Your task to perform on an android device: turn on improve location accuracy Image 0: 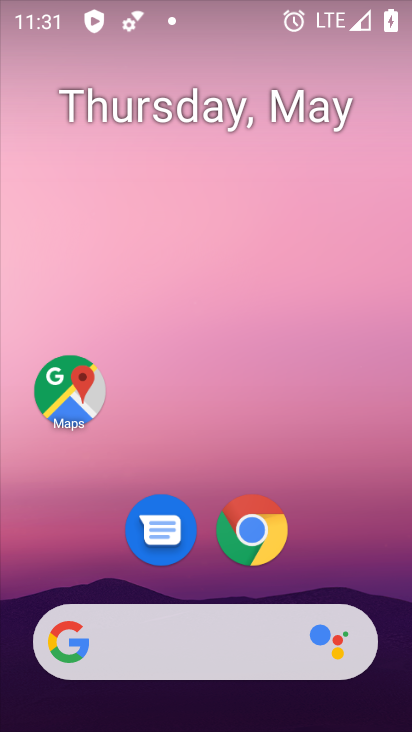
Step 0: drag from (296, 564) to (332, 45)
Your task to perform on an android device: turn on improve location accuracy Image 1: 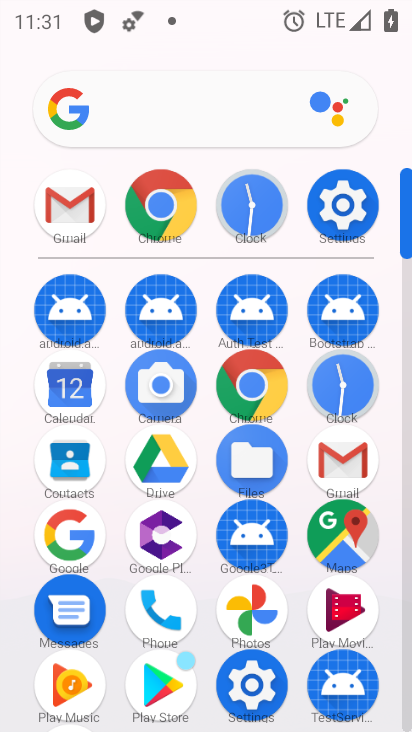
Step 1: click (325, 225)
Your task to perform on an android device: turn on improve location accuracy Image 2: 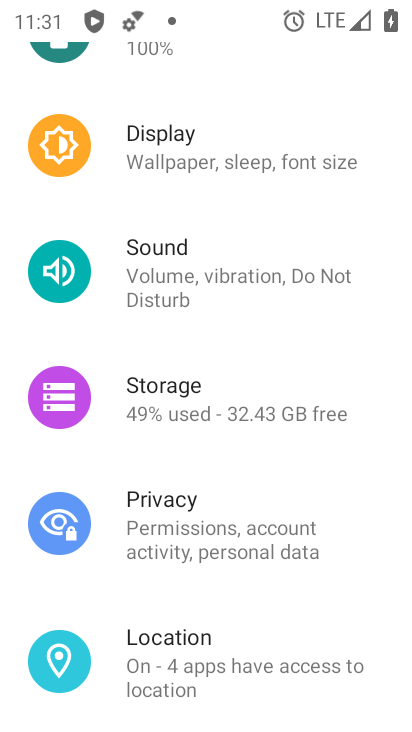
Step 2: click (265, 664)
Your task to perform on an android device: turn on improve location accuracy Image 3: 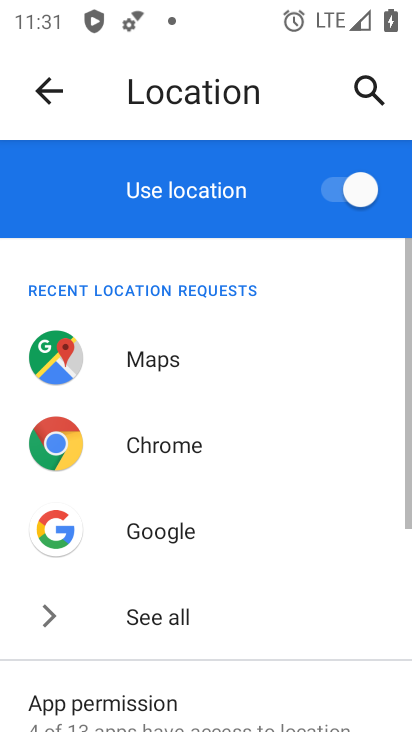
Step 3: drag from (255, 667) to (253, 286)
Your task to perform on an android device: turn on improve location accuracy Image 4: 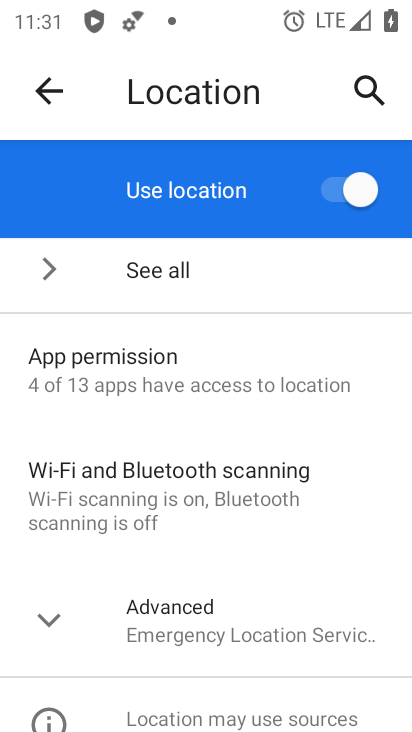
Step 4: click (204, 596)
Your task to perform on an android device: turn on improve location accuracy Image 5: 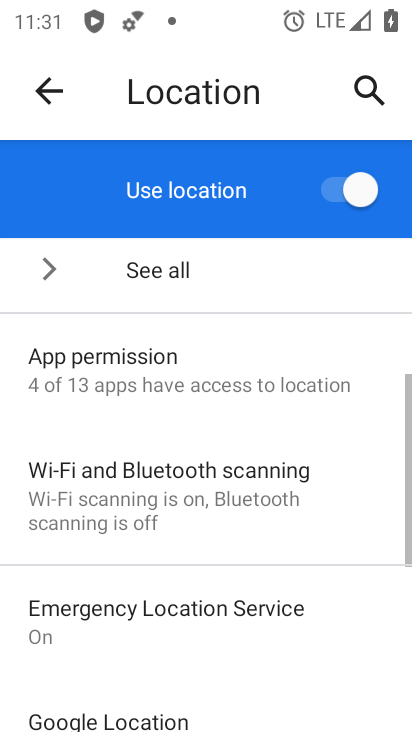
Step 5: drag from (218, 644) to (146, 379)
Your task to perform on an android device: turn on improve location accuracy Image 6: 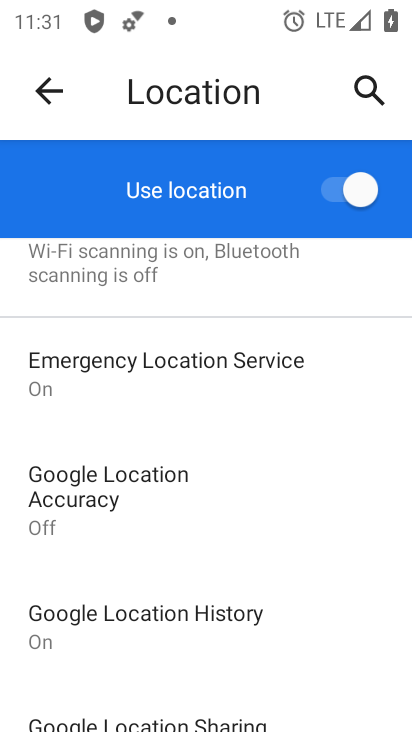
Step 6: click (159, 520)
Your task to perform on an android device: turn on improve location accuracy Image 7: 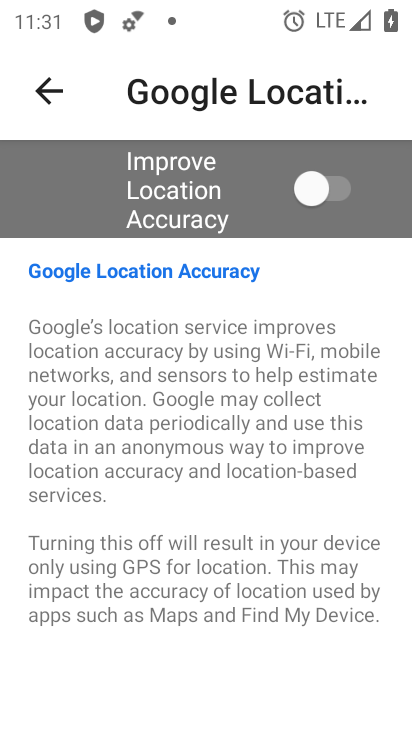
Step 7: click (313, 189)
Your task to perform on an android device: turn on improve location accuracy Image 8: 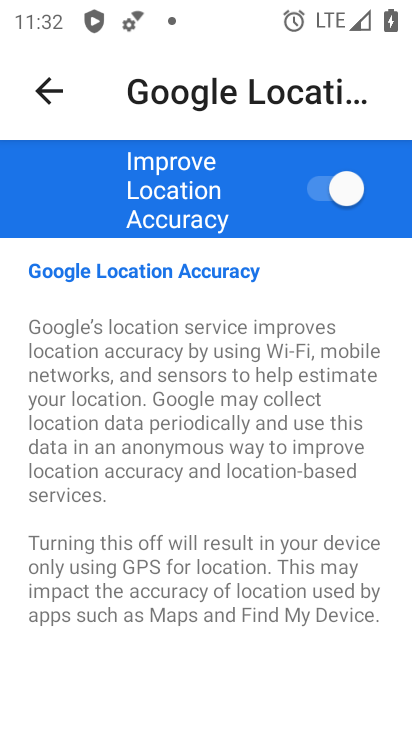
Step 8: task complete